Your task to perform on an android device: Open Yahoo.com Image 0: 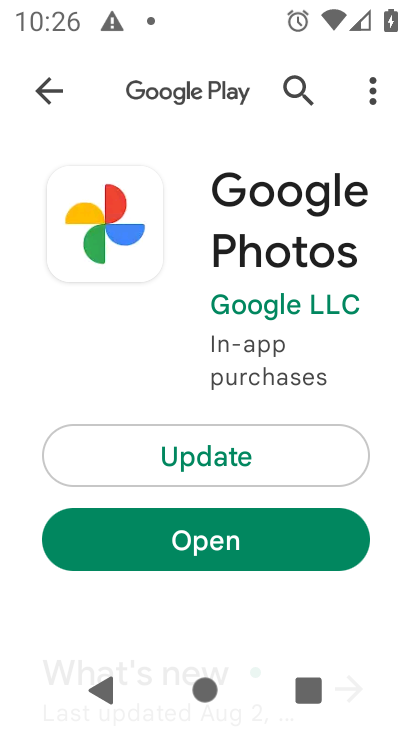
Step 0: press home button
Your task to perform on an android device: Open Yahoo.com Image 1: 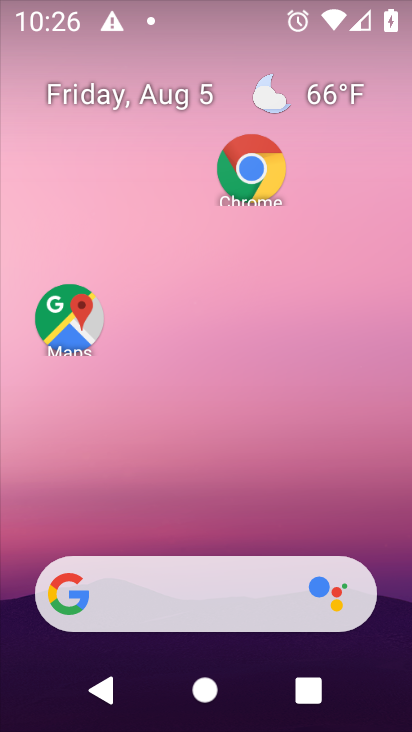
Step 1: click (242, 168)
Your task to perform on an android device: Open Yahoo.com Image 2: 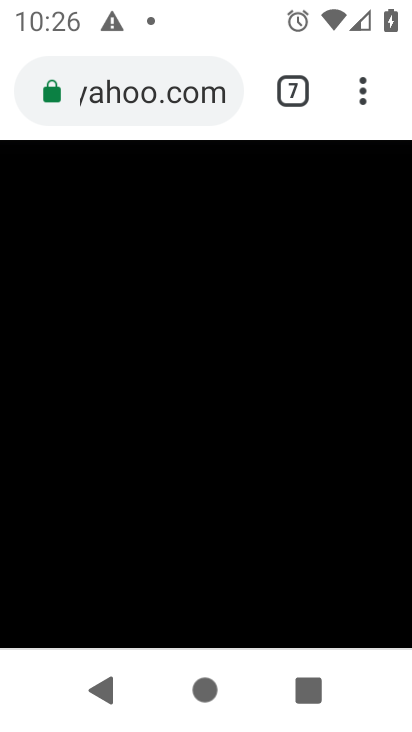
Step 2: task complete